Your task to perform on an android device: toggle data saver in the chrome app Image 0: 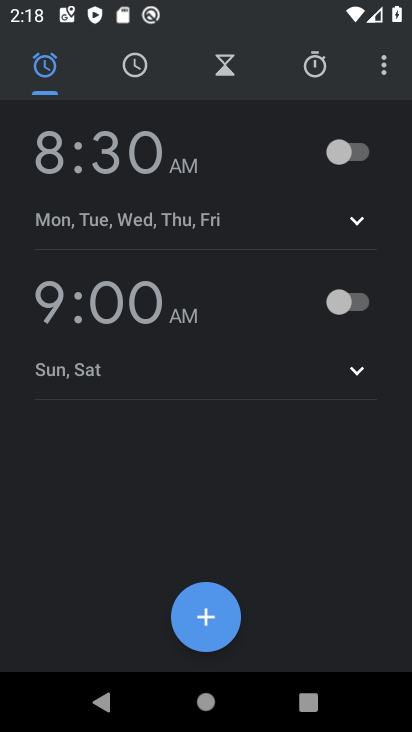
Step 0: press home button
Your task to perform on an android device: toggle data saver in the chrome app Image 1: 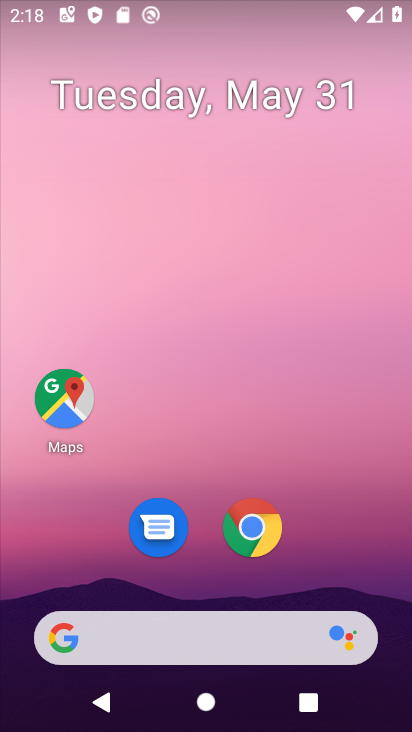
Step 1: drag from (324, 270) to (17, 328)
Your task to perform on an android device: toggle data saver in the chrome app Image 2: 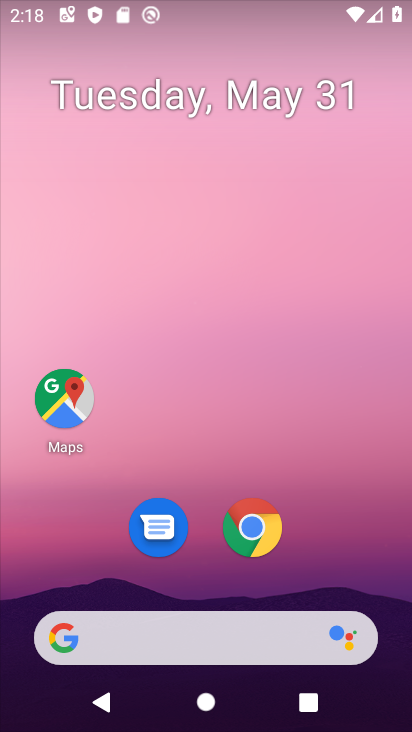
Step 2: drag from (361, 553) to (372, 19)
Your task to perform on an android device: toggle data saver in the chrome app Image 3: 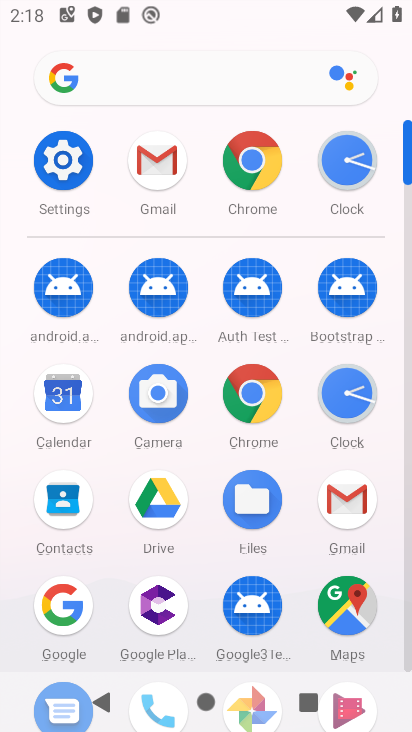
Step 3: click (229, 164)
Your task to perform on an android device: toggle data saver in the chrome app Image 4: 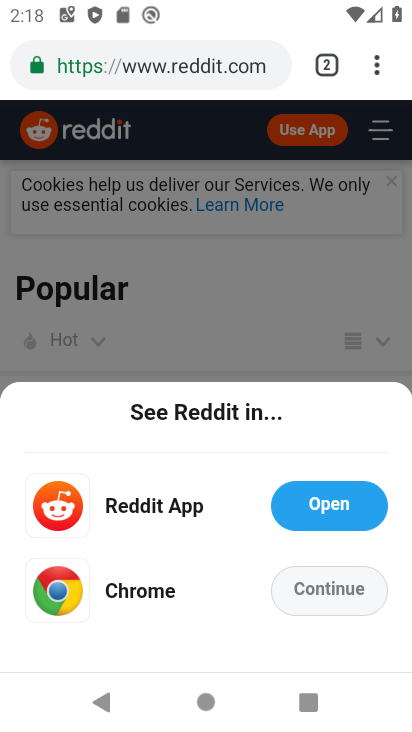
Step 4: drag from (360, 71) to (169, 567)
Your task to perform on an android device: toggle data saver in the chrome app Image 5: 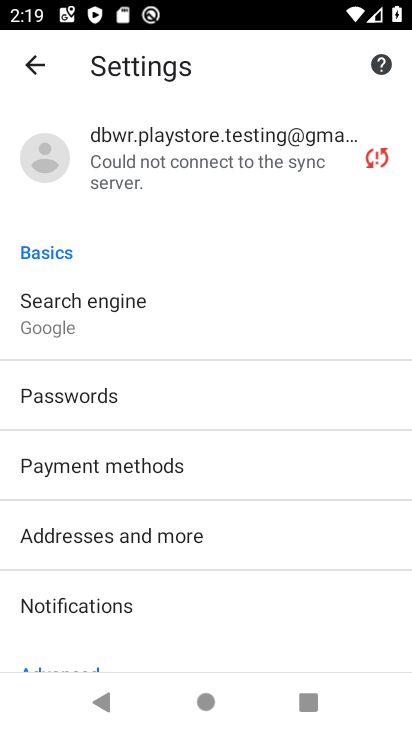
Step 5: drag from (178, 598) to (183, 219)
Your task to perform on an android device: toggle data saver in the chrome app Image 6: 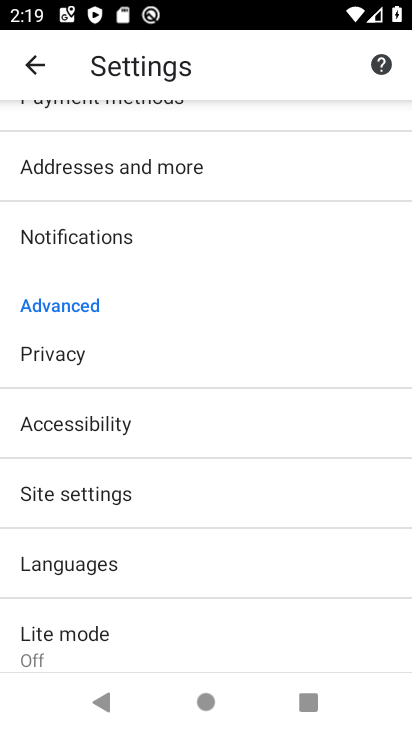
Step 6: drag from (175, 575) to (203, 254)
Your task to perform on an android device: toggle data saver in the chrome app Image 7: 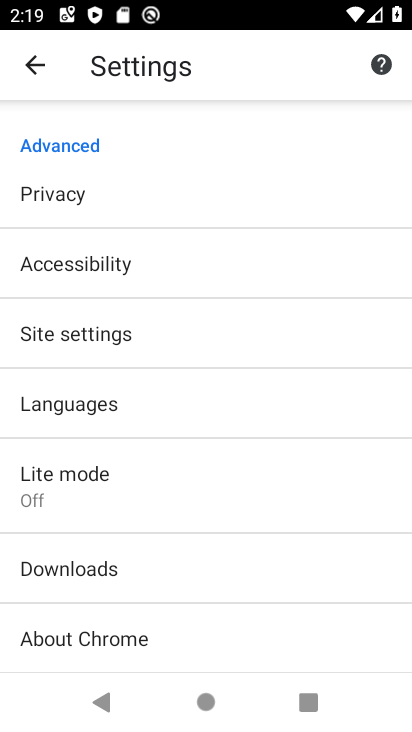
Step 7: click (66, 496)
Your task to perform on an android device: toggle data saver in the chrome app Image 8: 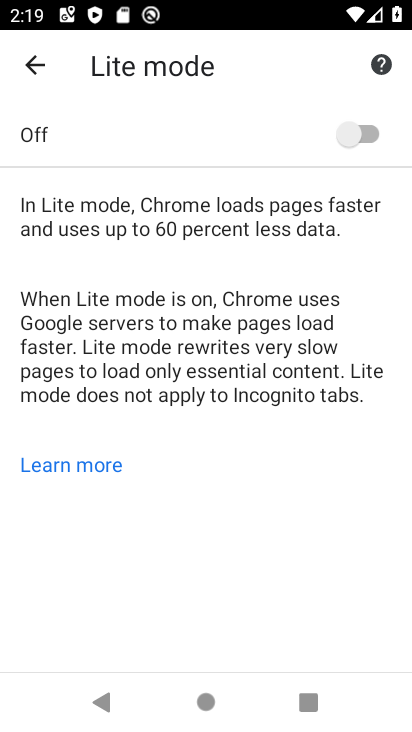
Step 8: click (357, 134)
Your task to perform on an android device: toggle data saver in the chrome app Image 9: 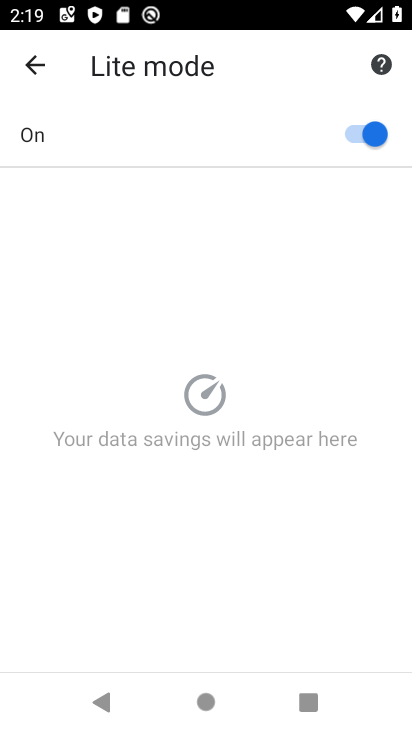
Step 9: task complete